Your task to perform on an android device: Open calendar and show me the fourth week of next month Image 0: 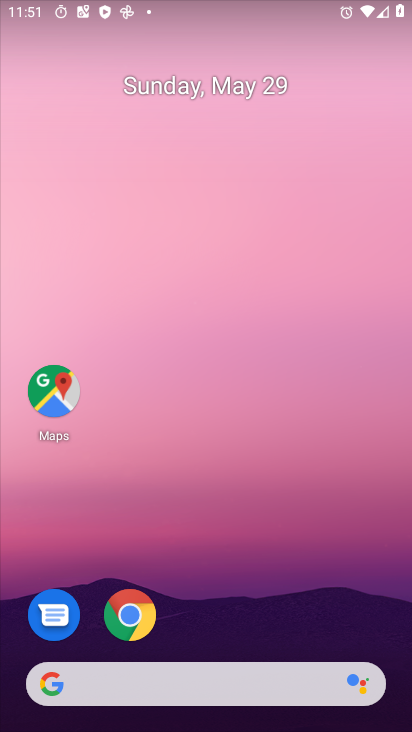
Step 0: drag from (227, 586) to (285, 105)
Your task to perform on an android device: Open calendar and show me the fourth week of next month Image 1: 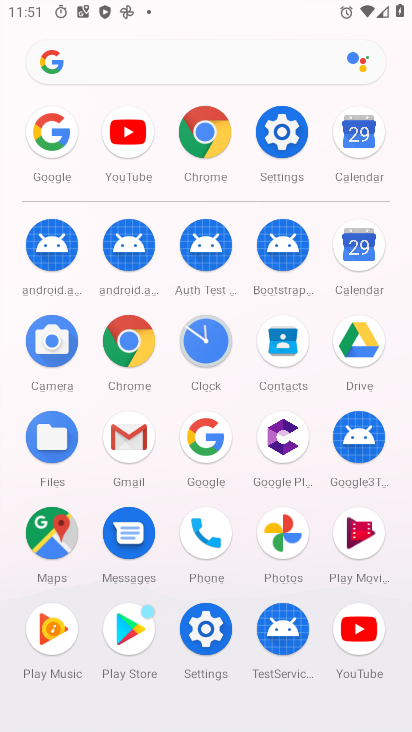
Step 1: click (359, 250)
Your task to perform on an android device: Open calendar and show me the fourth week of next month Image 2: 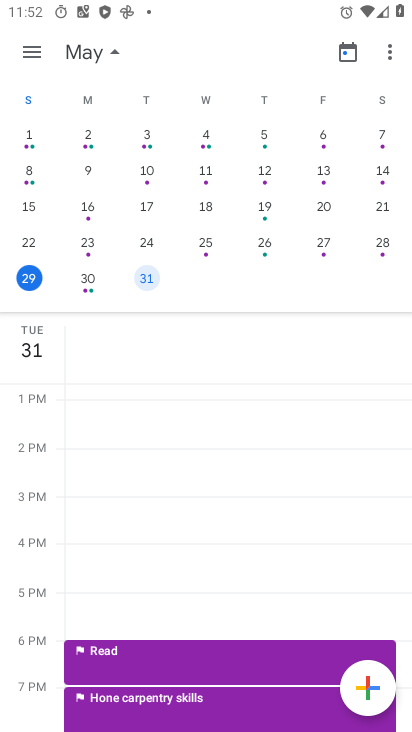
Step 2: drag from (369, 288) to (5, 276)
Your task to perform on an android device: Open calendar and show me the fourth week of next month Image 3: 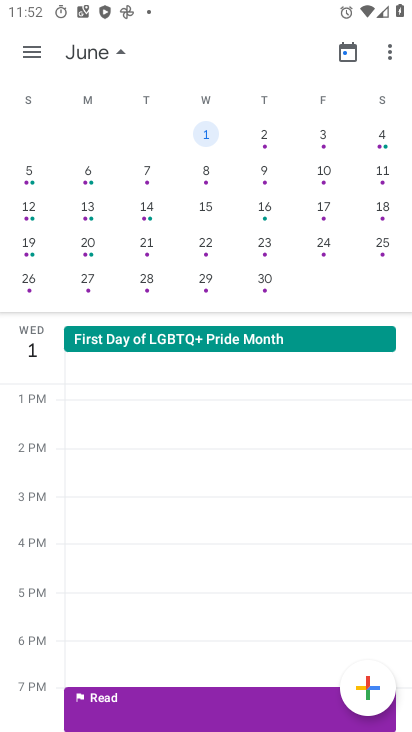
Step 3: click (206, 241)
Your task to perform on an android device: Open calendar and show me the fourth week of next month Image 4: 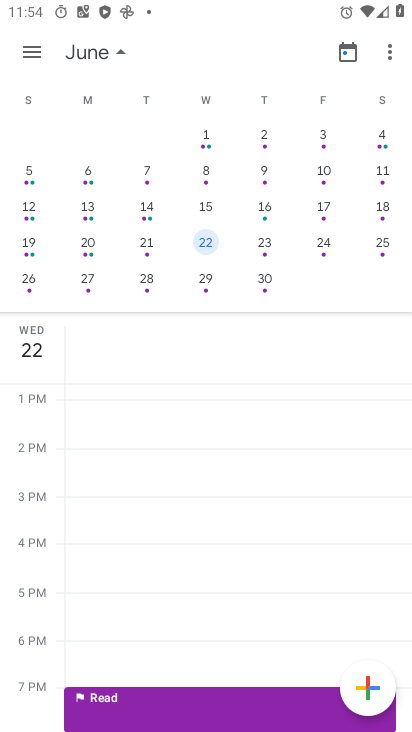
Step 4: task complete